Your task to perform on an android device: Open calendar and show me the third week of next month Image 0: 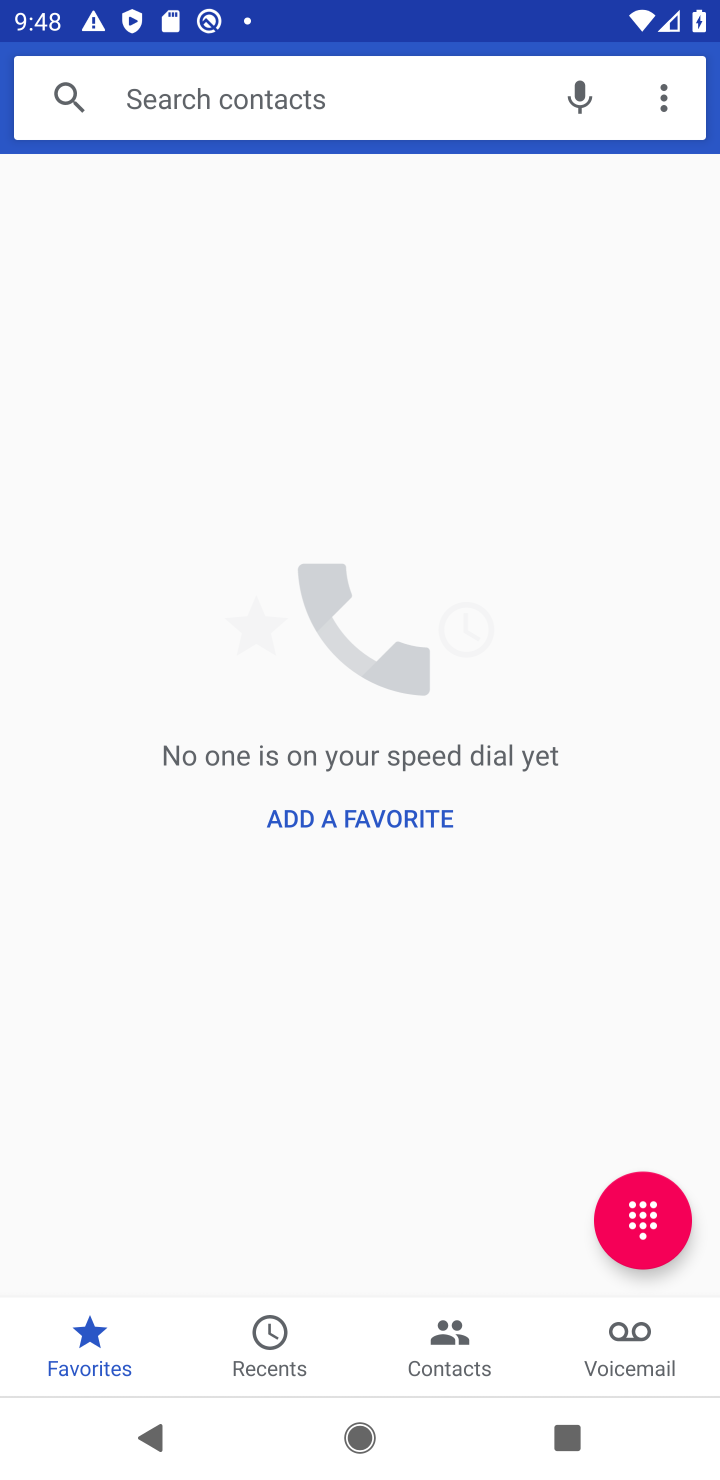
Step 0: press home button
Your task to perform on an android device: Open calendar and show me the third week of next month Image 1: 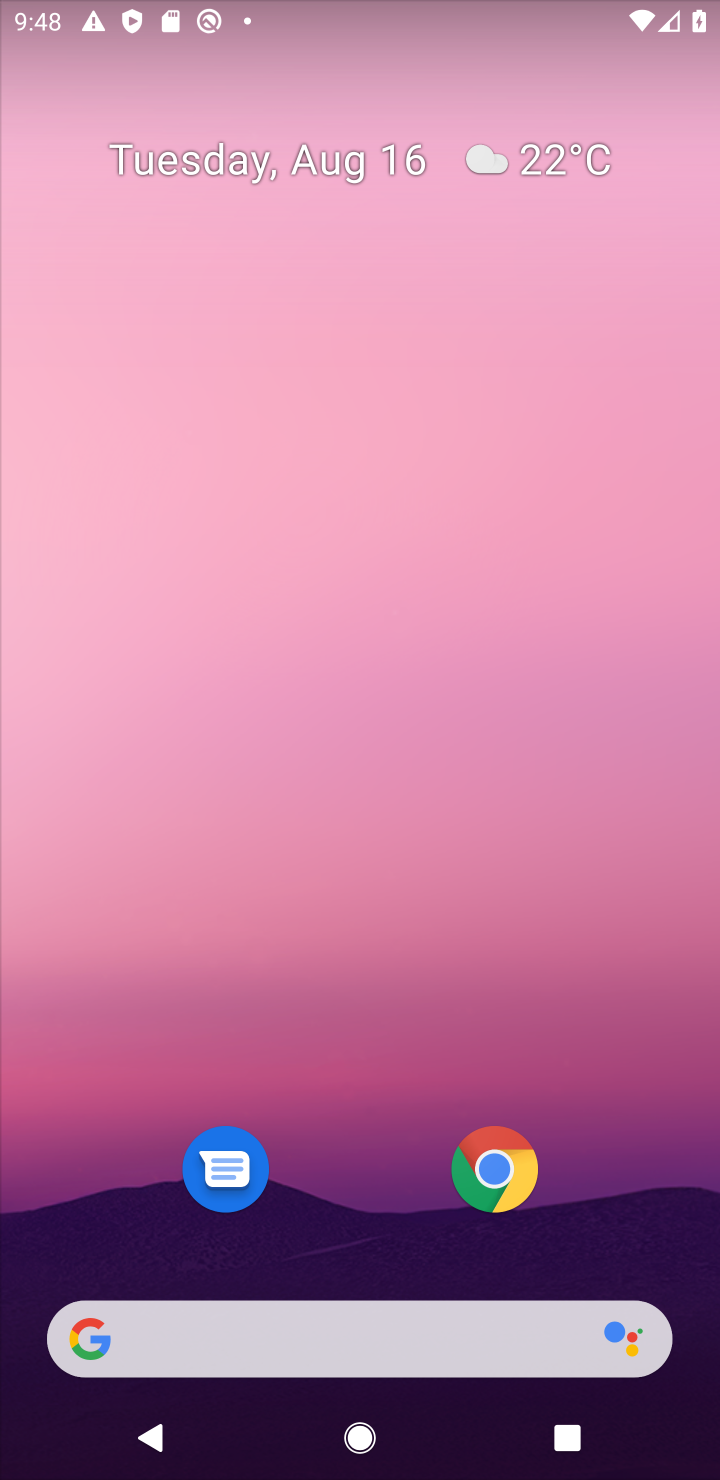
Step 1: drag from (337, 1249) to (331, 106)
Your task to perform on an android device: Open calendar and show me the third week of next month Image 2: 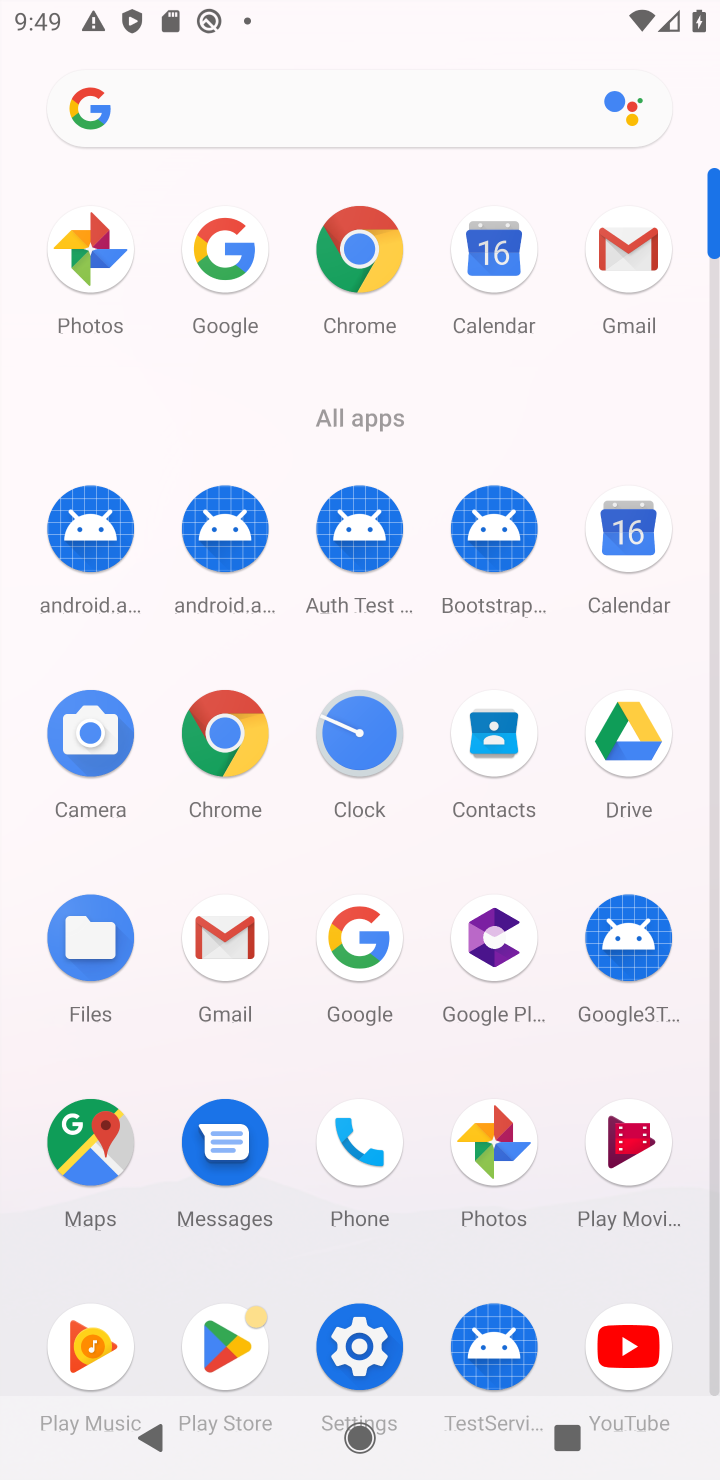
Step 2: click (619, 536)
Your task to perform on an android device: Open calendar and show me the third week of next month Image 3: 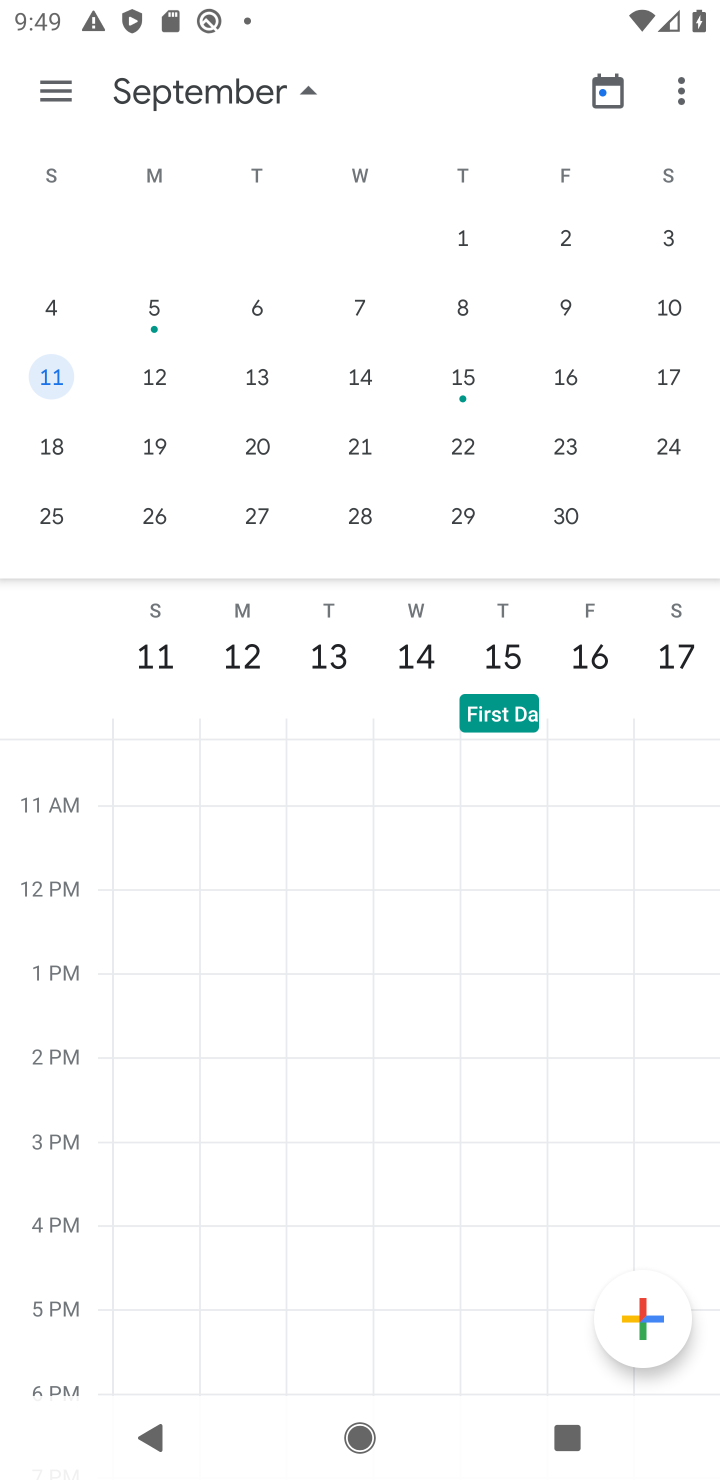
Step 3: task complete